Your task to perform on an android device: change keyboard looks Image 0: 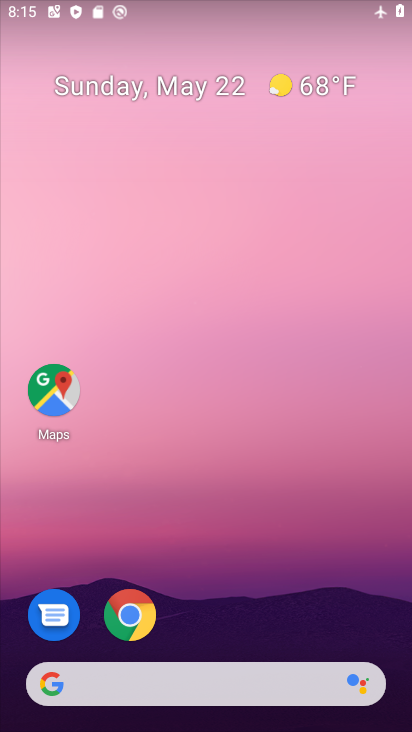
Step 0: drag from (273, 656) to (143, 121)
Your task to perform on an android device: change keyboard looks Image 1: 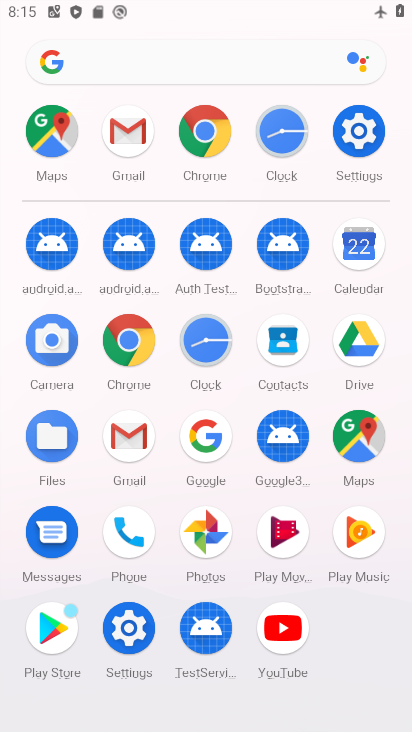
Step 1: click (344, 121)
Your task to perform on an android device: change keyboard looks Image 2: 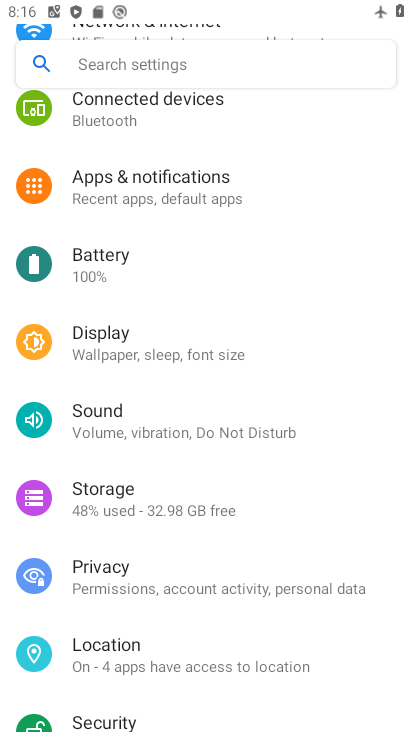
Step 2: drag from (324, 158) to (342, 374)
Your task to perform on an android device: change keyboard looks Image 3: 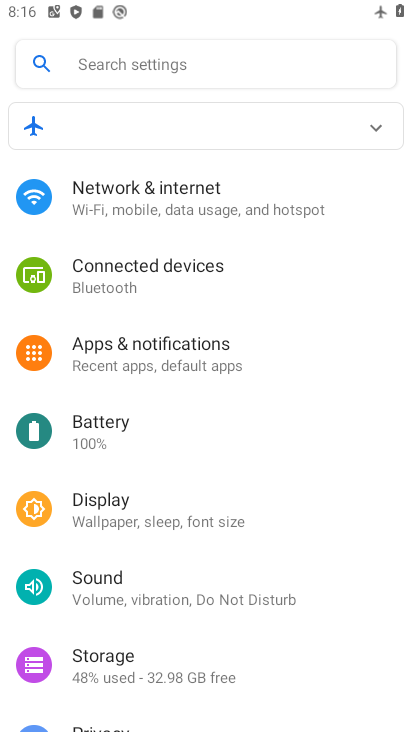
Step 3: drag from (380, 615) to (255, 128)
Your task to perform on an android device: change keyboard looks Image 4: 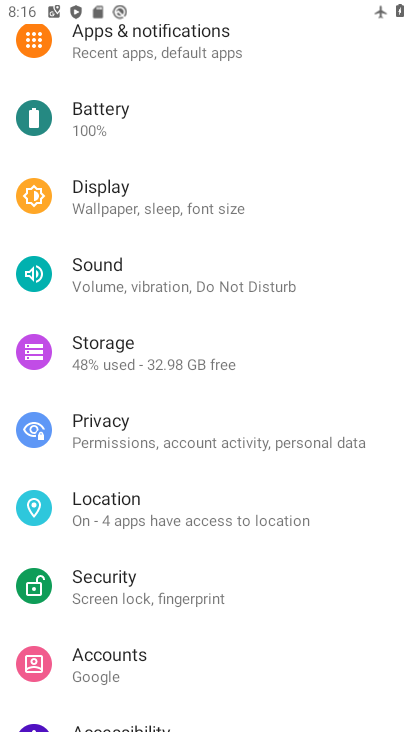
Step 4: drag from (263, 571) to (214, 196)
Your task to perform on an android device: change keyboard looks Image 5: 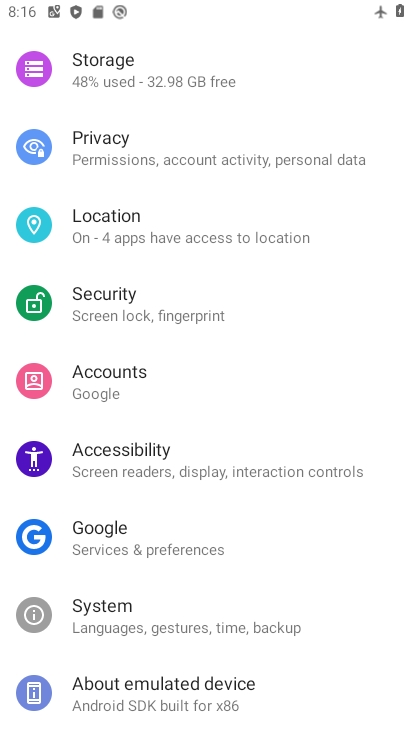
Step 5: click (72, 600)
Your task to perform on an android device: change keyboard looks Image 6: 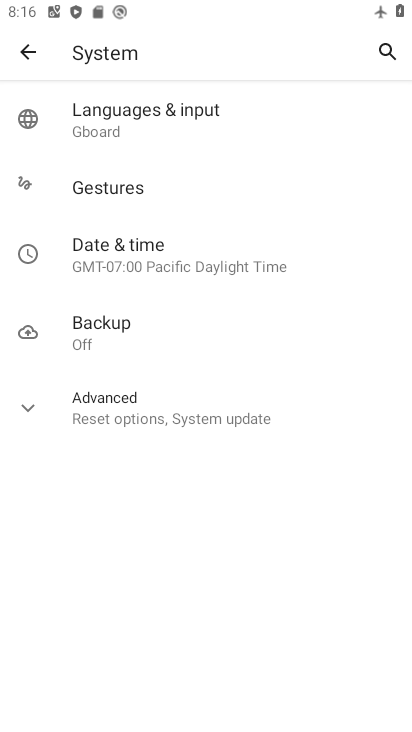
Step 6: click (126, 115)
Your task to perform on an android device: change keyboard looks Image 7: 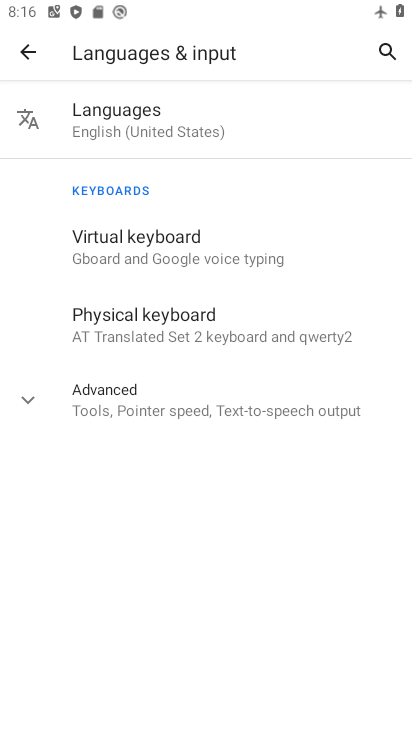
Step 7: click (112, 224)
Your task to perform on an android device: change keyboard looks Image 8: 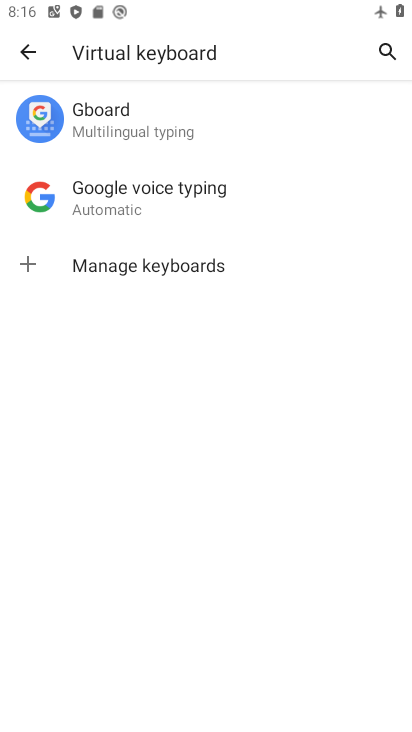
Step 8: click (80, 111)
Your task to perform on an android device: change keyboard looks Image 9: 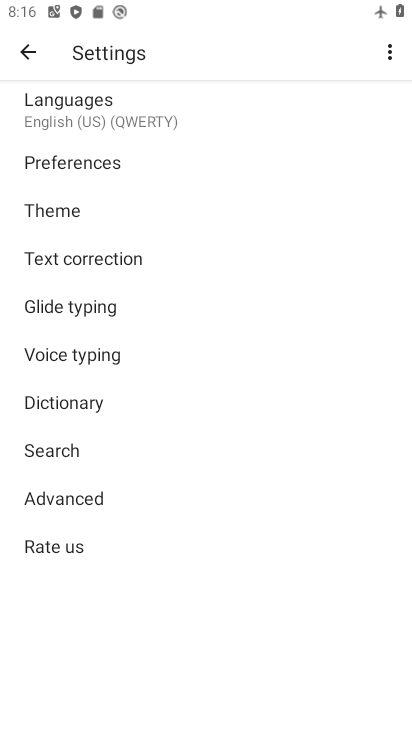
Step 9: click (61, 204)
Your task to perform on an android device: change keyboard looks Image 10: 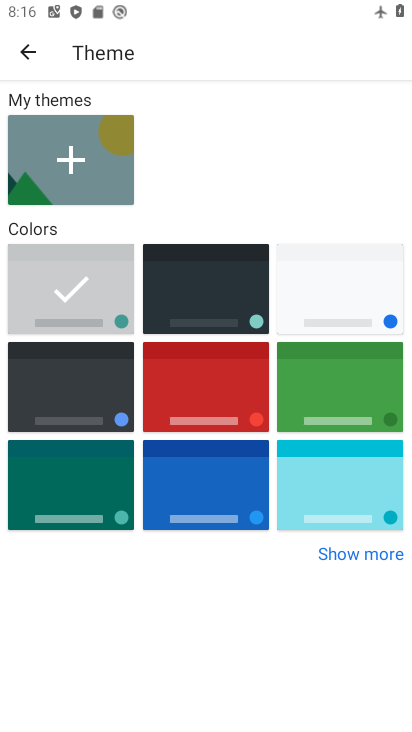
Step 10: click (99, 365)
Your task to perform on an android device: change keyboard looks Image 11: 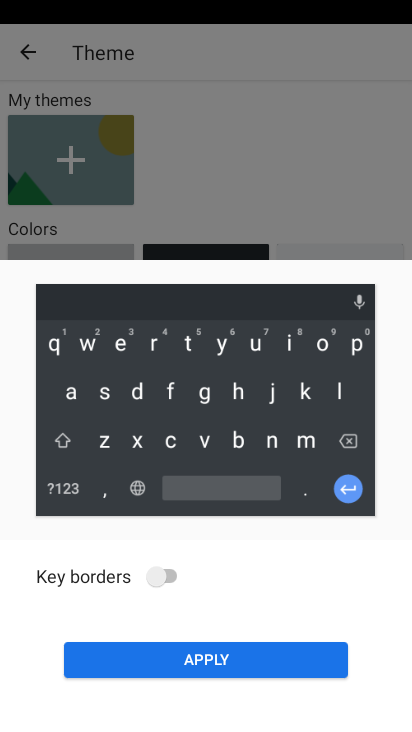
Step 11: click (202, 655)
Your task to perform on an android device: change keyboard looks Image 12: 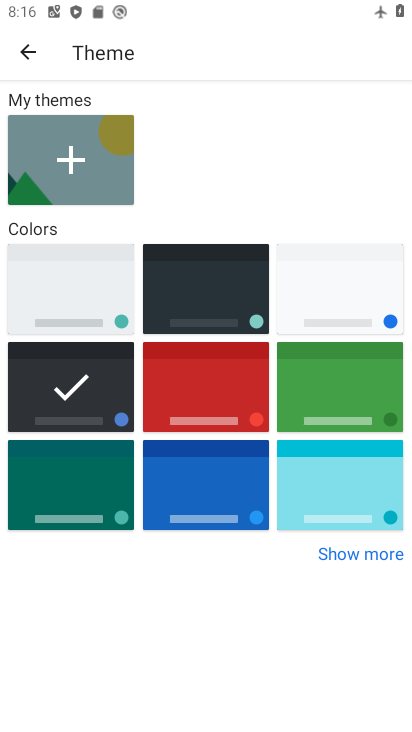
Step 12: task complete